Your task to perform on an android device: Search for sushi restaurants on Maps Image 0: 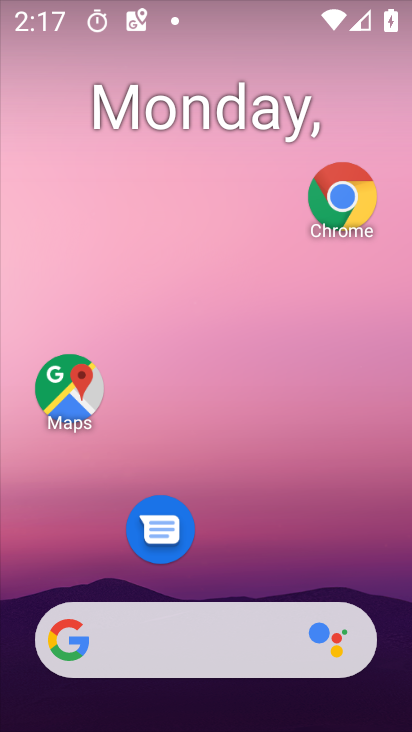
Step 0: drag from (248, 589) to (221, 31)
Your task to perform on an android device: Search for sushi restaurants on Maps Image 1: 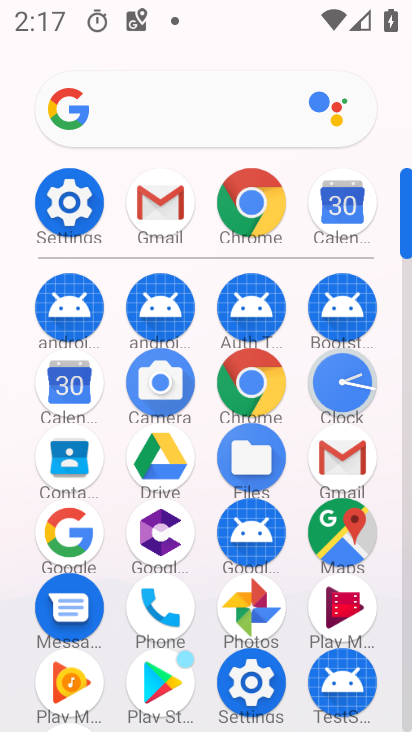
Step 1: click (342, 547)
Your task to perform on an android device: Search for sushi restaurants on Maps Image 2: 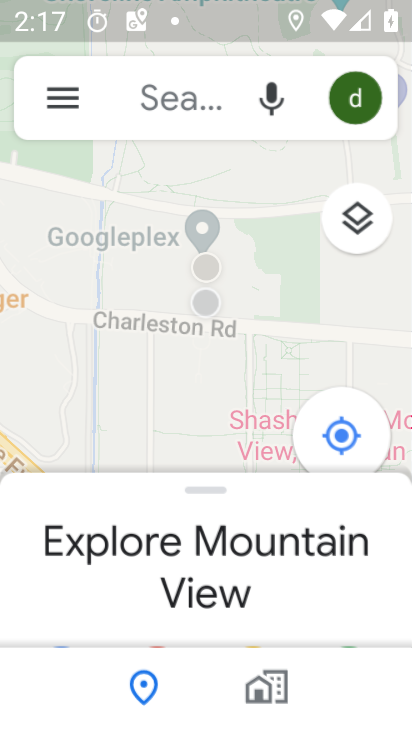
Step 2: click (131, 100)
Your task to perform on an android device: Search for sushi restaurants on Maps Image 3: 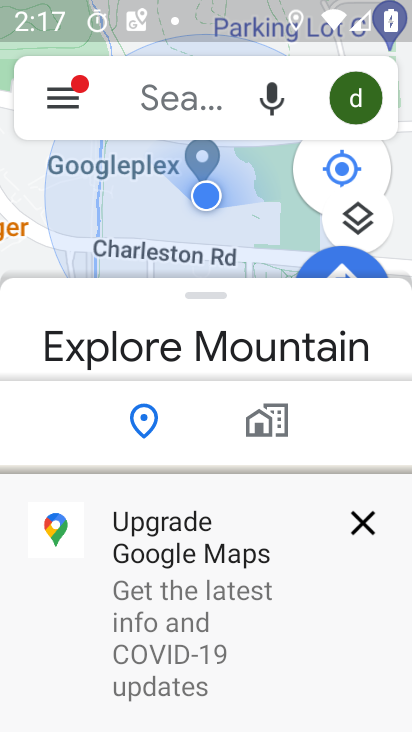
Step 3: click (362, 521)
Your task to perform on an android device: Search for sushi restaurants on Maps Image 4: 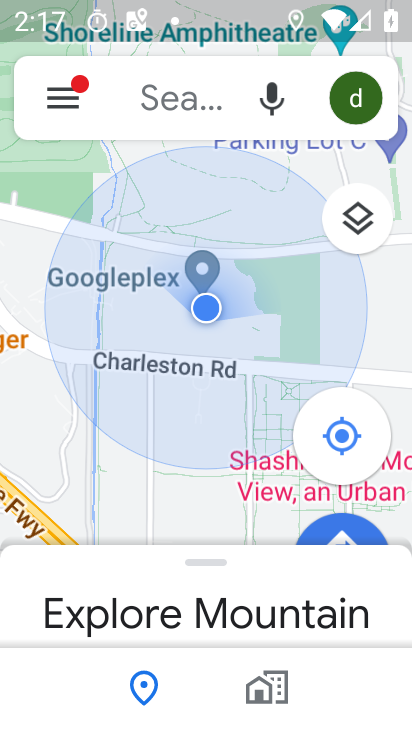
Step 4: click (199, 87)
Your task to perform on an android device: Search for sushi restaurants on Maps Image 5: 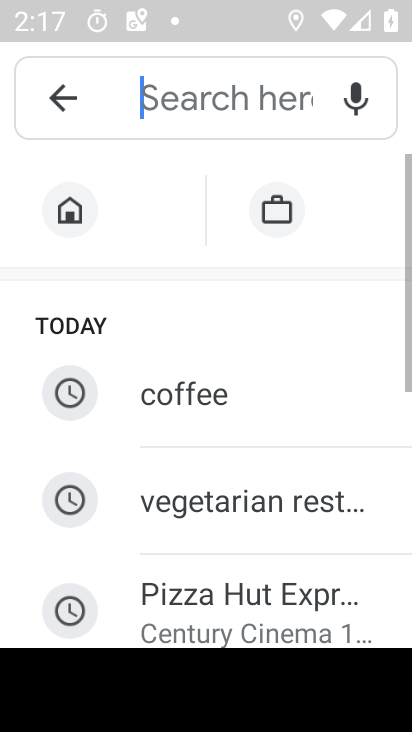
Step 5: drag from (249, 574) to (217, 306)
Your task to perform on an android device: Search for sushi restaurants on Maps Image 6: 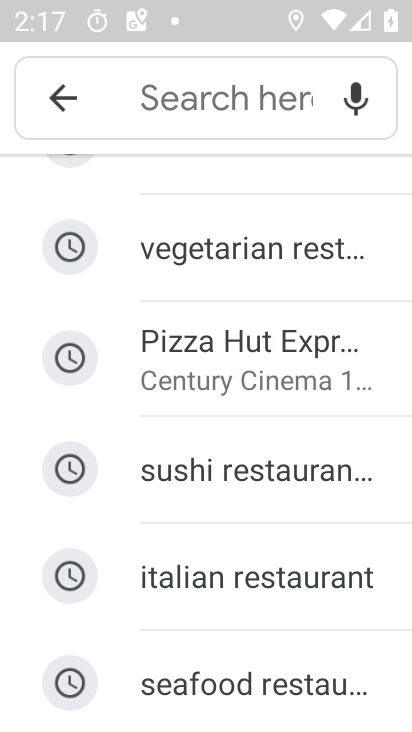
Step 6: click (167, 481)
Your task to perform on an android device: Search for sushi restaurants on Maps Image 7: 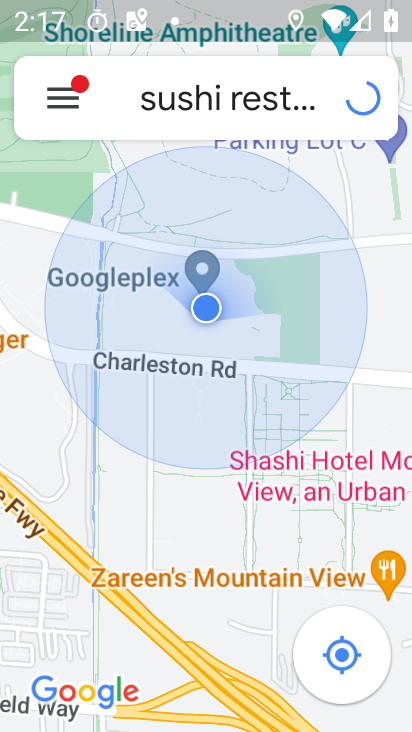
Step 7: task complete